Your task to perform on an android device: Set the phone to "Do not disturb". Image 0: 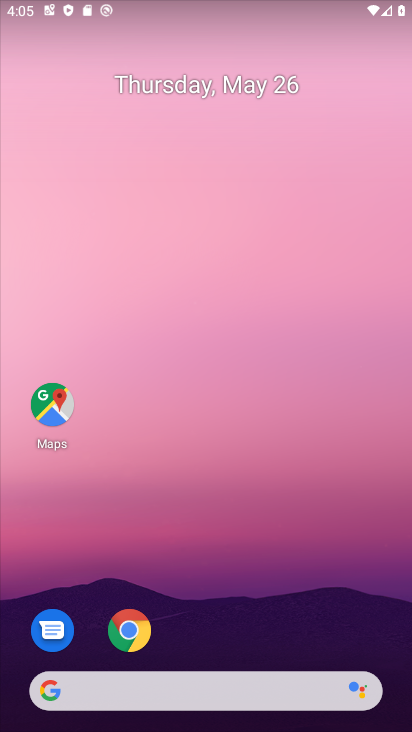
Step 0: drag from (241, 563) to (222, 69)
Your task to perform on an android device: Set the phone to "Do not disturb". Image 1: 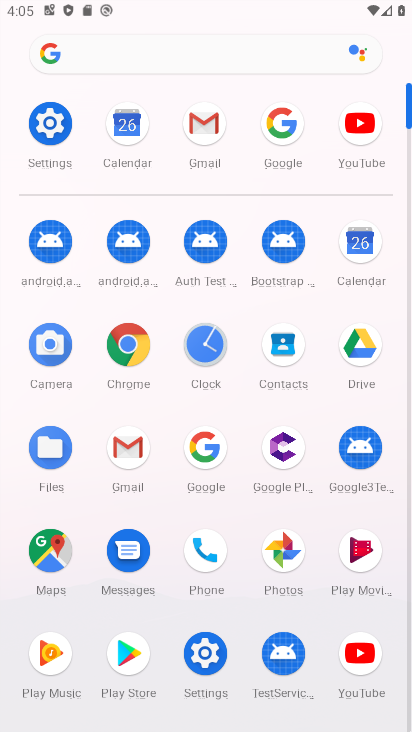
Step 1: click (206, 648)
Your task to perform on an android device: Set the phone to "Do not disturb". Image 2: 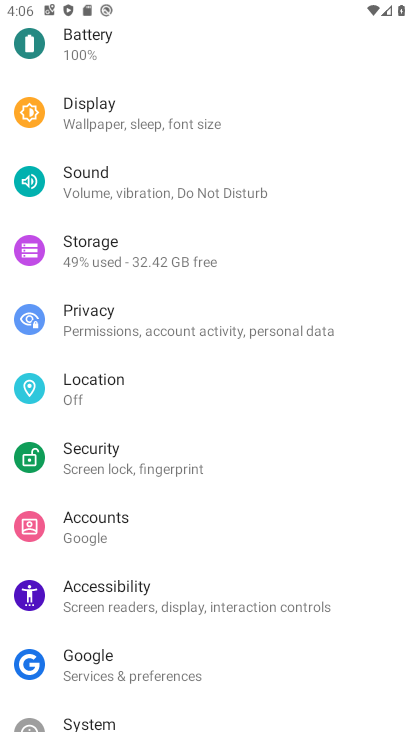
Step 2: click (241, 198)
Your task to perform on an android device: Set the phone to "Do not disturb". Image 3: 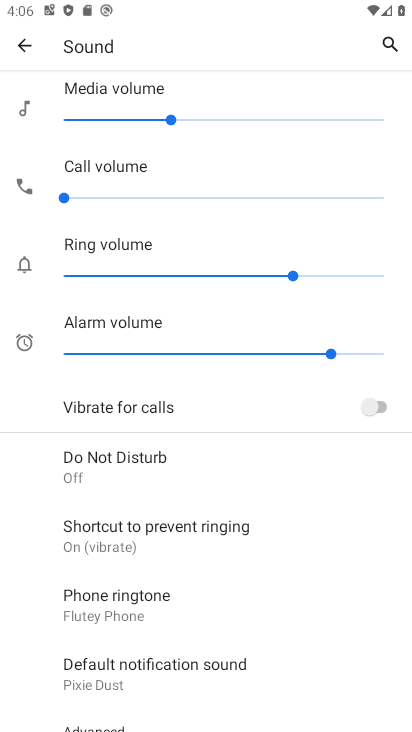
Step 3: click (127, 456)
Your task to perform on an android device: Set the phone to "Do not disturb". Image 4: 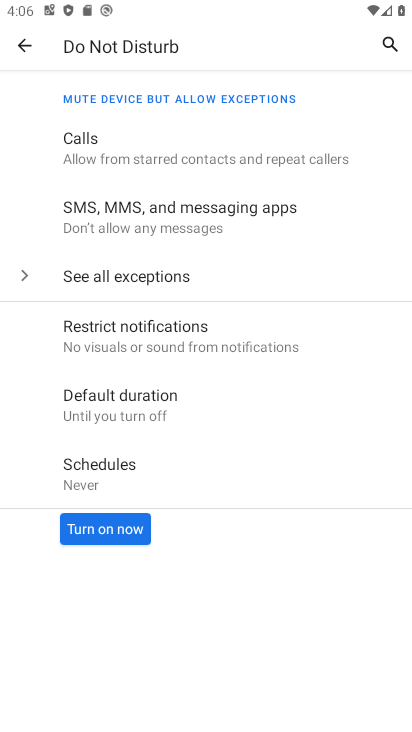
Step 4: click (110, 522)
Your task to perform on an android device: Set the phone to "Do not disturb". Image 5: 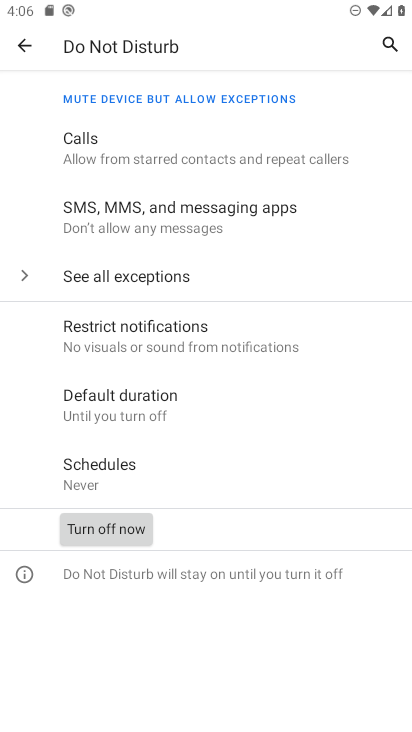
Step 5: task complete